Your task to perform on an android device: turn off smart reply in the gmail app Image 0: 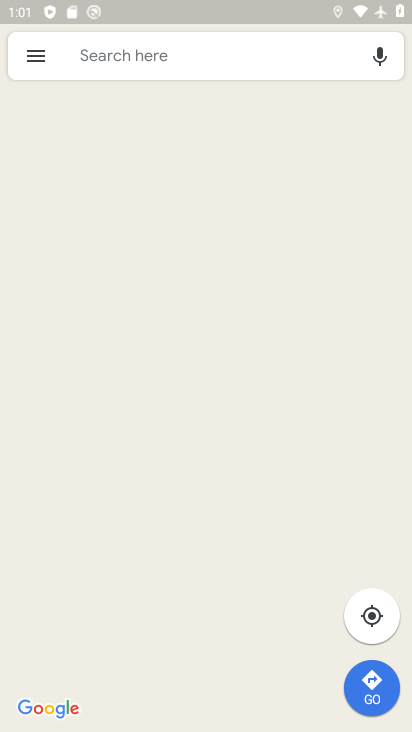
Step 0: press home button
Your task to perform on an android device: turn off smart reply in the gmail app Image 1: 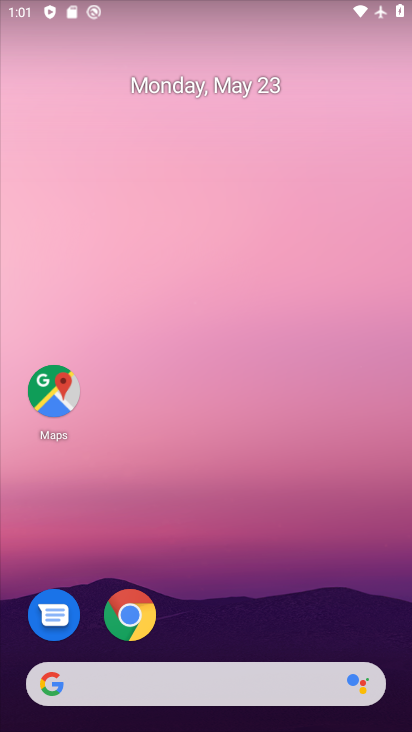
Step 1: drag from (198, 662) to (379, 50)
Your task to perform on an android device: turn off smart reply in the gmail app Image 2: 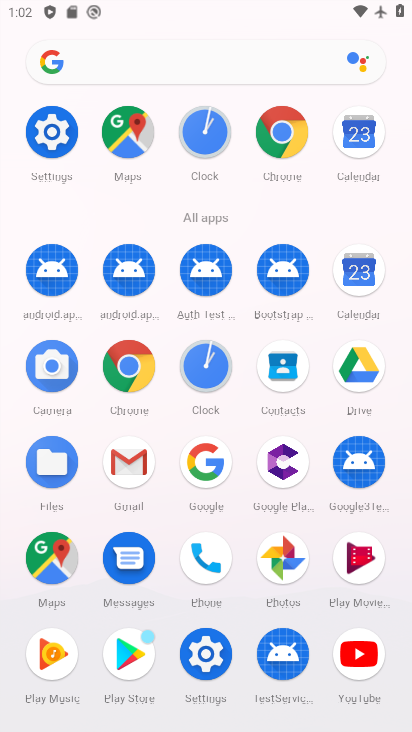
Step 2: click (122, 442)
Your task to perform on an android device: turn off smart reply in the gmail app Image 3: 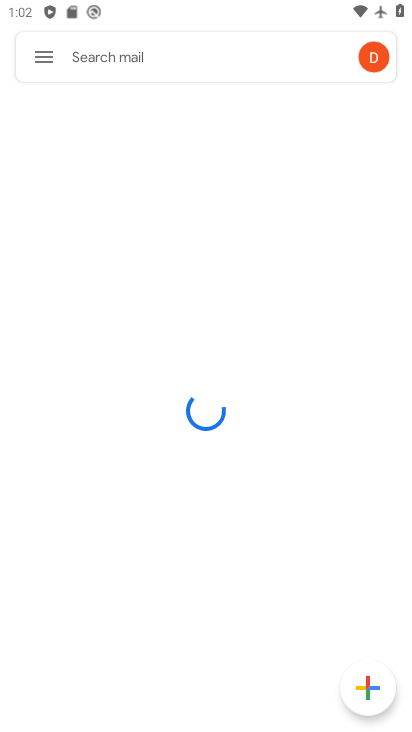
Step 3: click (37, 59)
Your task to perform on an android device: turn off smart reply in the gmail app Image 4: 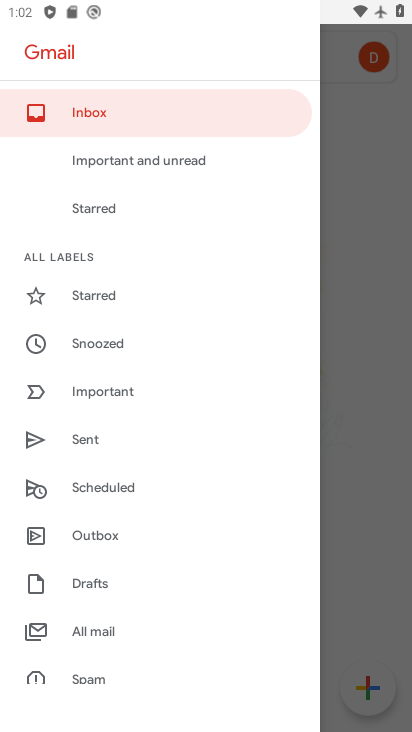
Step 4: drag from (126, 574) to (155, 334)
Your task to perform on an android device: turn off smart reply in the gmail app Image 5: 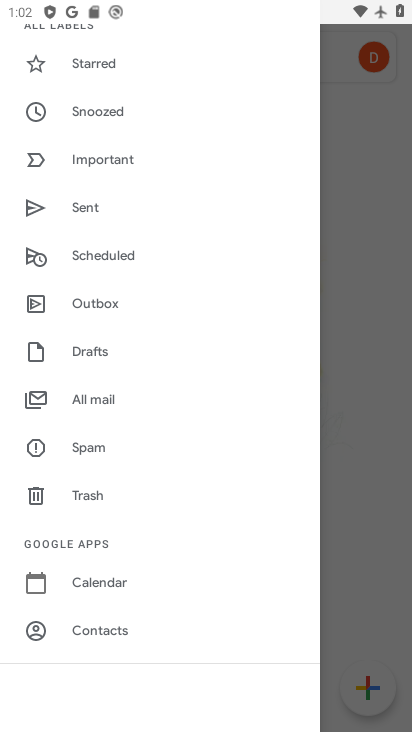
Step 5: drag from (108, 613) to (115, 442)
Your task to perform on an android device: turn off smart reply in the gmail app Image 6: 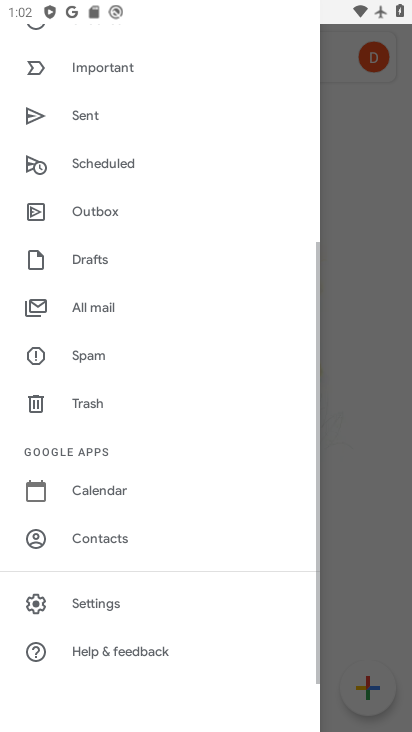
Step 6: click (85, 593)
Your task to perform on an android device: turn off smart reply in the gmail app Image 7: 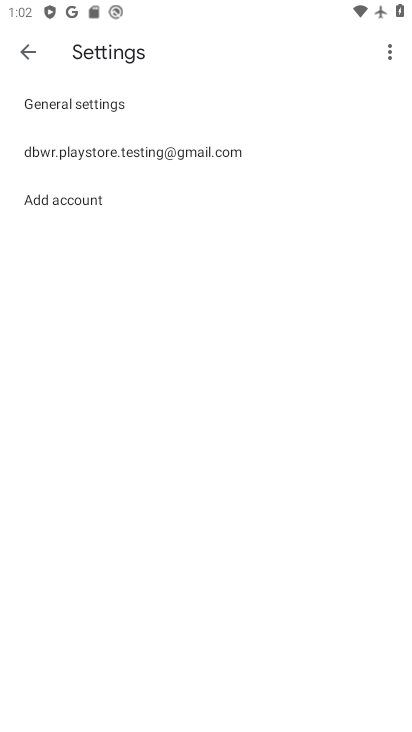
Step 7: click (57, 144)
Your task to perform on an android device: turn off smart reply in the gmail app Image 8: 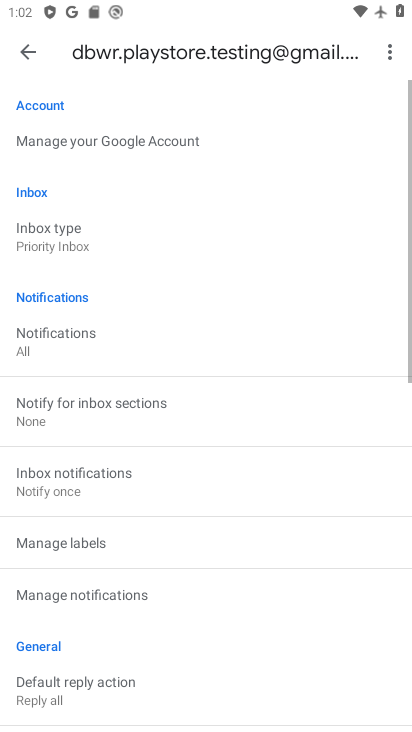
Step 8: drag from (200, 559) to (163, 203)
Your task to perform on an android device: turn off smart reply in the gmail app Image 9: 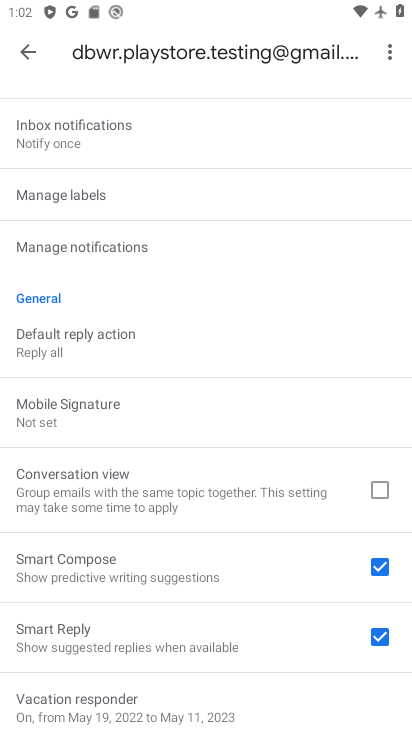
Step 9: click (374, 630)
Your task to perform on an android device: turn off smart reply in the gmail app Image 10: 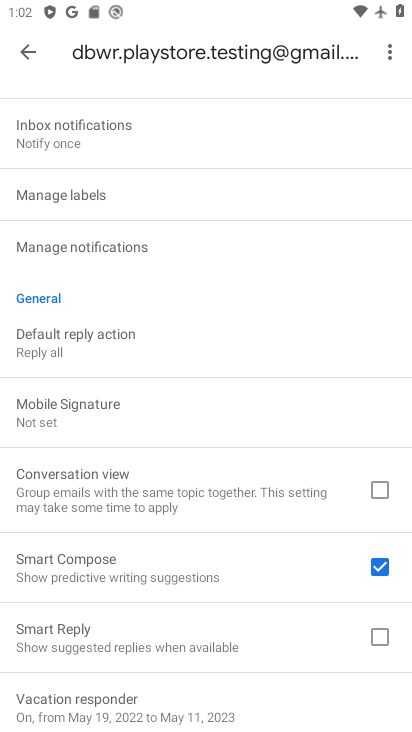
Step 10: task complete